Your task to perform on an android device: Go to Google maps Image 0: 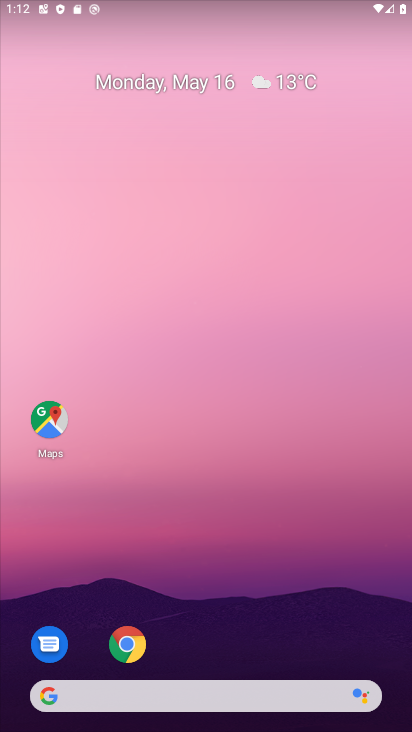
Step 0: drag from (287, 632) to (354, 77)
Your task to perform on an android device: Go to Google maps Image 1: 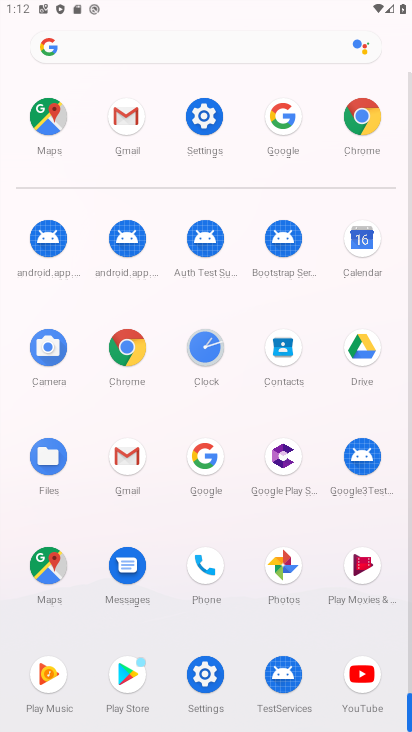
Step 1: drag from (212, 585) to (218, 320)
Your task to perform on an android device: Go to Google maps Image 2: 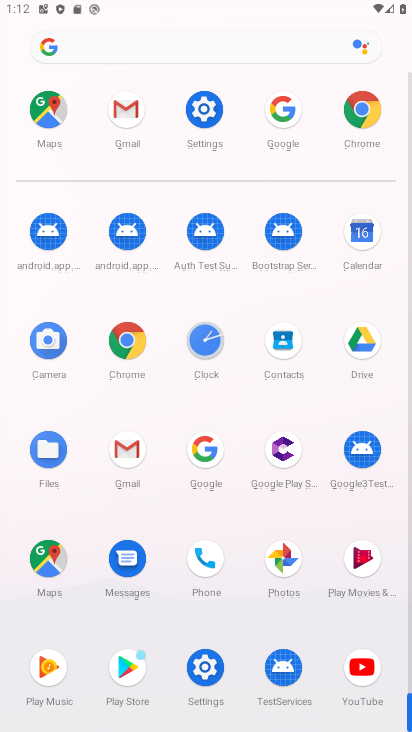
Step 2: click (57, 578)
Your task to perform on an android device: Go to Google maps Image 3: 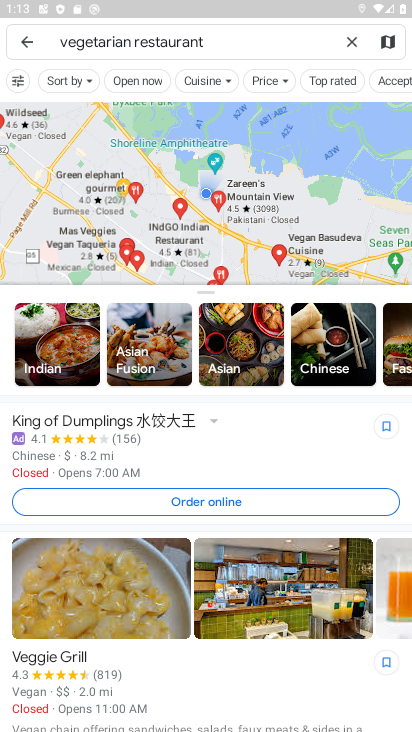
Step 3: task complete